Your task to perform on an android device: Open eBay Image 0: 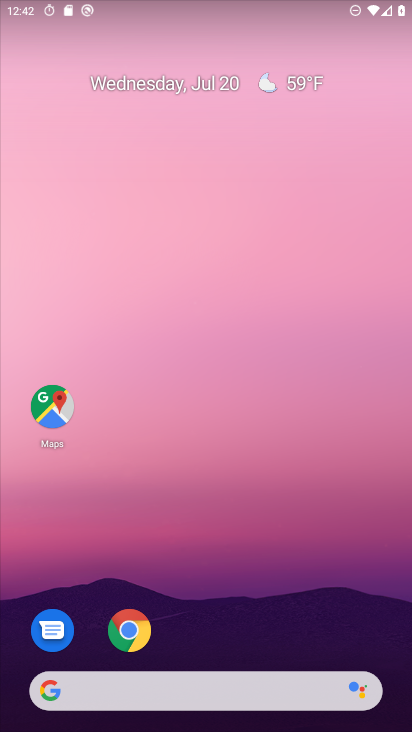
Step 0: drag from (242, 686) to (222, 6)
Your task to perform on an android device: Open eBay Image 1: 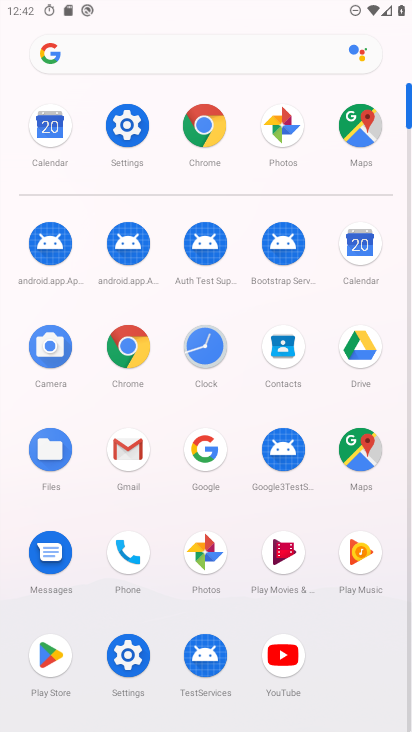
Step 1: drag from (202, 652) to (227, 234)
Your task to perform on an android device: Open eBay Image 2: 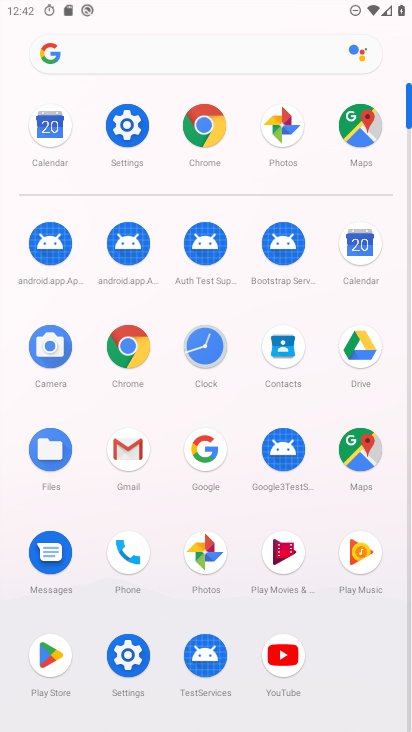
Step 2: click (132, 347)
Your task to perform on an android device: Open eBay Image 3: 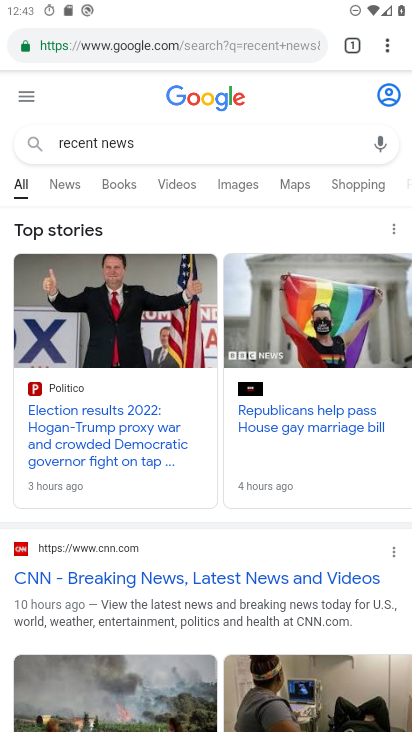
Step 3: drag from (386, 41) to (226, 88)
Your task to perform on an android device: Open eBay Image 4: 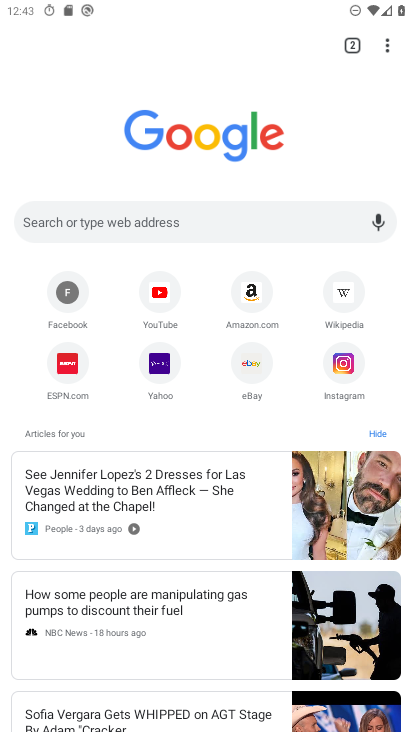
Step 4: click (258, 361)
Your task to perform on an android device: Open eBay Image 5: 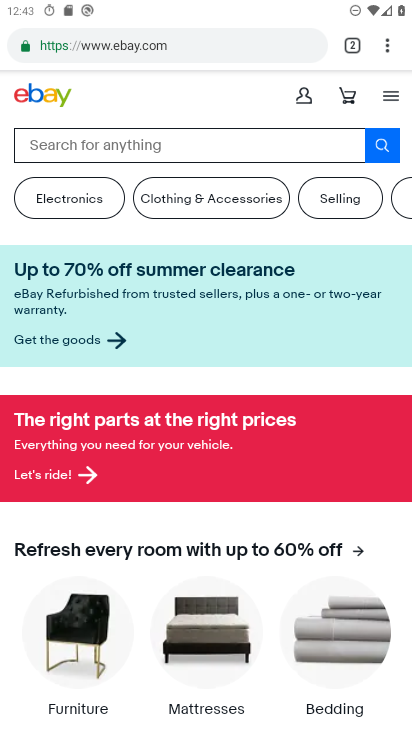
Step 5: task complete